Your task to perform on an android device: turn on translation in the chrome app Image 0: 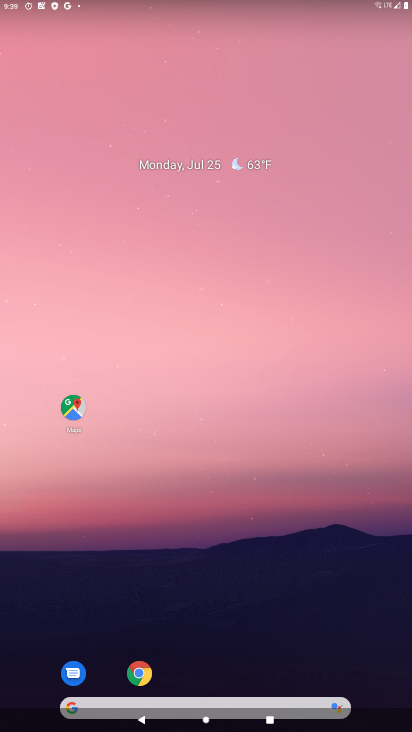
Step 0: drag from (184, 683) to (180, 51)
Your task to perform on an android device: turn on translation in the chrome app Image 1: 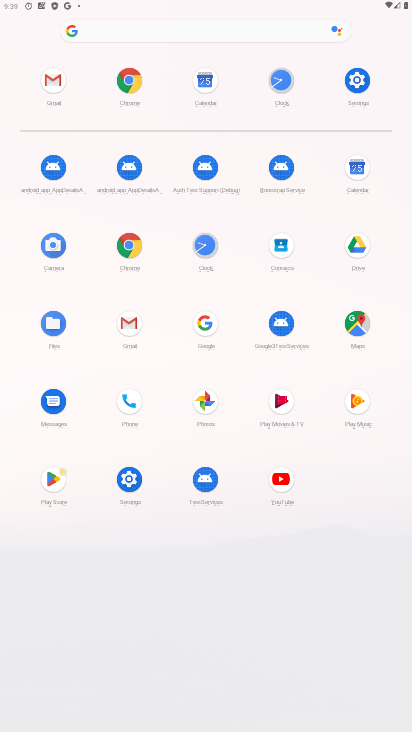
Step 1: click (129, 250)
Your task to perform on an android device: turn on translation in the chrome app Image 2: 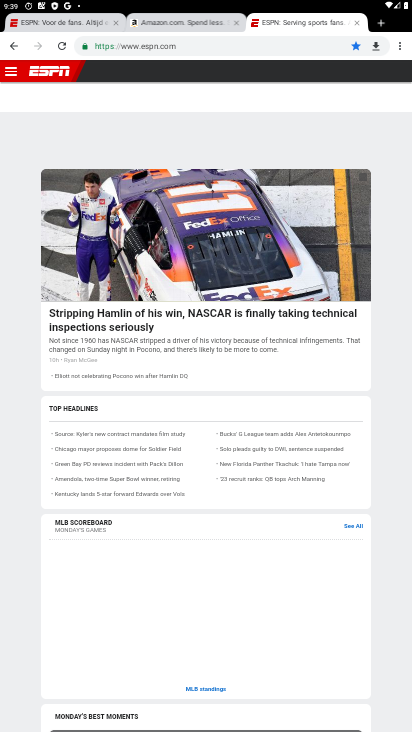
Step 2: drag from (400, 45) to (330, 308)
Your task to perform on an android device: turn on translation in the chrome app Image 3: 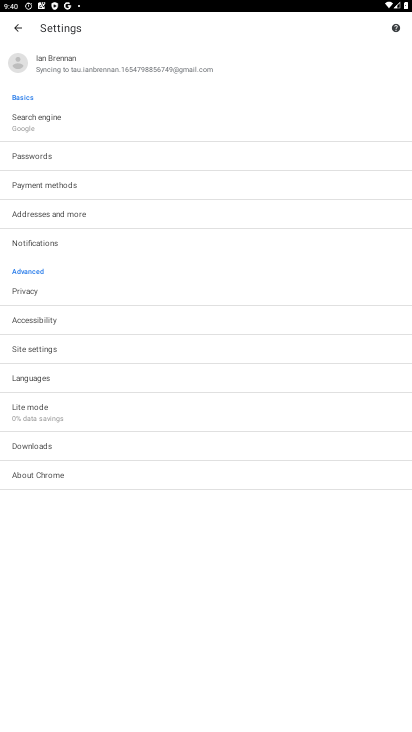
Step 3: click (65, 375)
Your task to perform on an android device: turn on translation in the chrome app Image 4: 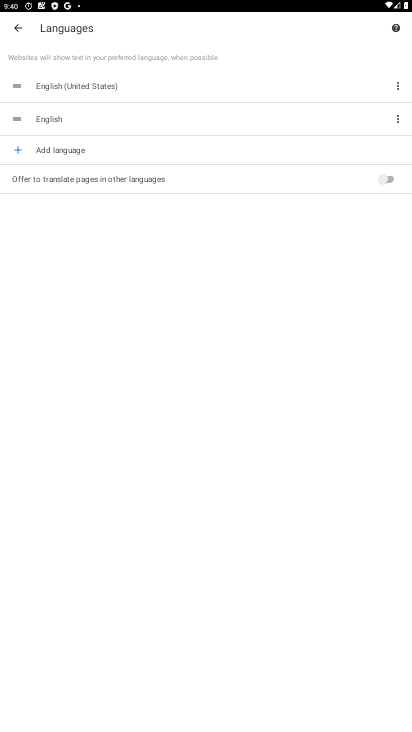
Step 4: click (341, 177)
Your task to perform on an android device: turn on translation in the chrome app Image 5: 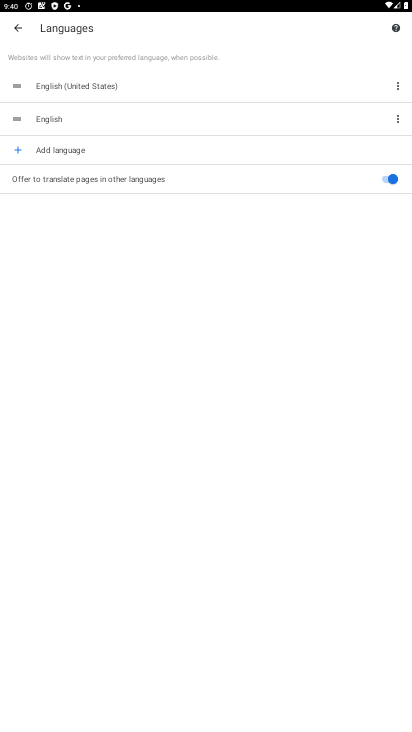
Step 5: task complete